Your task to perform on an android device: Set the phone to "Do not disturb". Image 0: 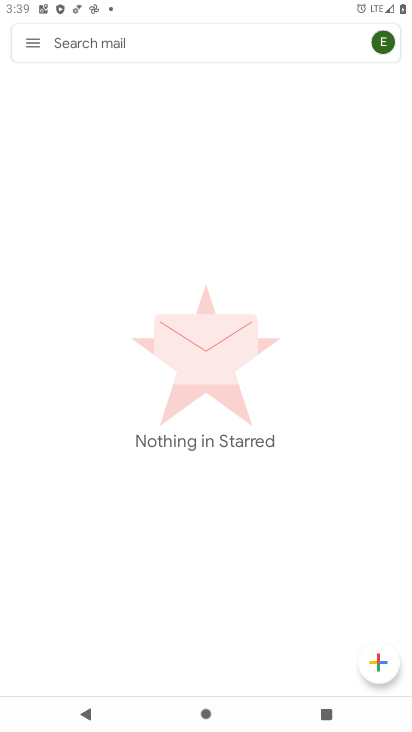
Step 0: press home button
Your task to perform on an android device: Set the phone to "Do not disturb". Image 1: 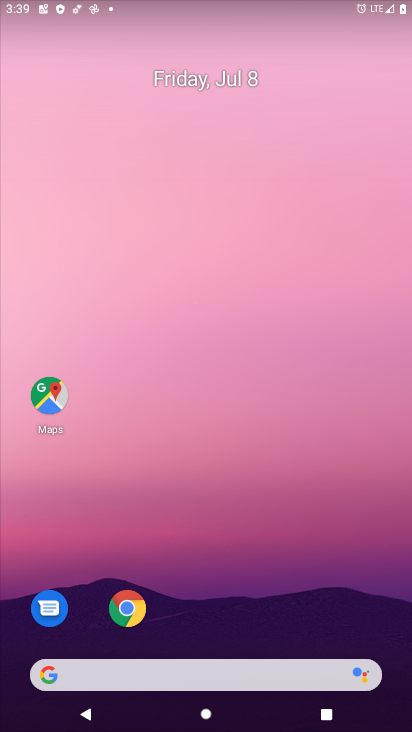
Step 1: drag from (191, 636) to (222, 37)
Your task to perform on an android device: Set the phone to "Do not disturb". Image 2: 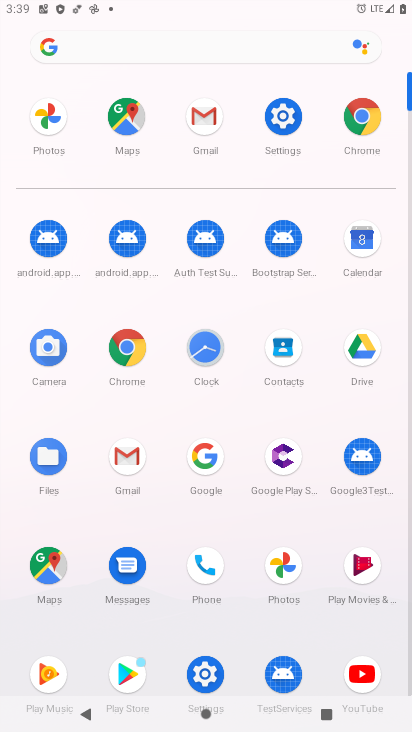
Step 2: click (297, 113)
Your task to perform on an android device: Set the phone to "Do not disturb". Image 3: 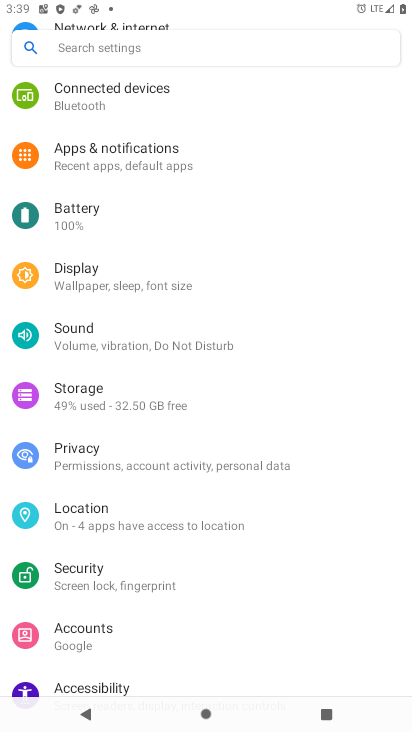
Step 3: click (83, 332)
Your task to perform on an android device: Set the phone to "Do not disturb". Image 4: 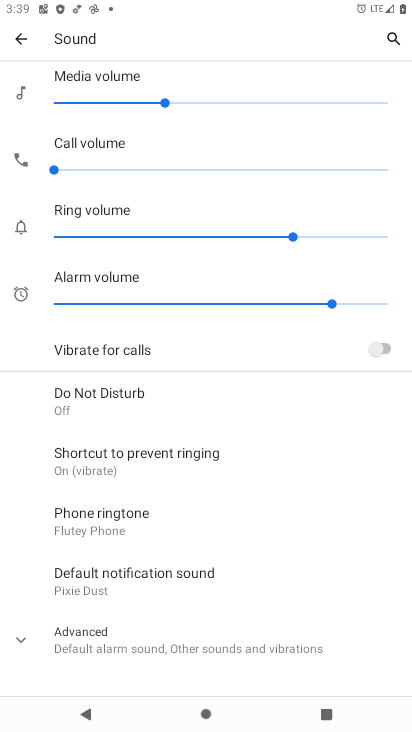
Step 4: click (133, 405)
Your task to perform on an android device: Set the phone to "Do not disturb". Image 5: 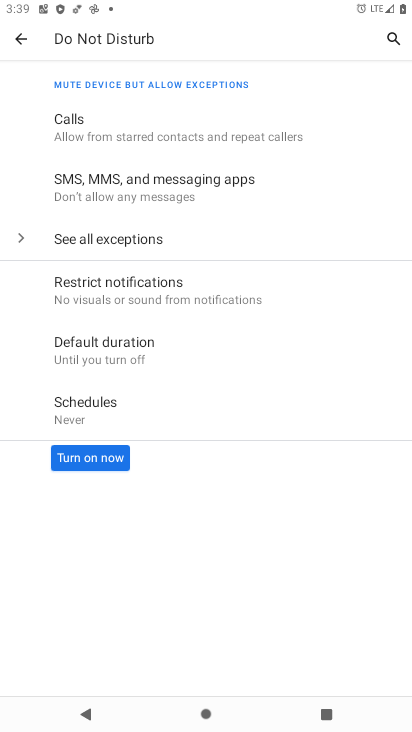
Step 5: click (94, 455)
Your task to perform on an android device: Set the phone to "Do not disturb". Image 6: 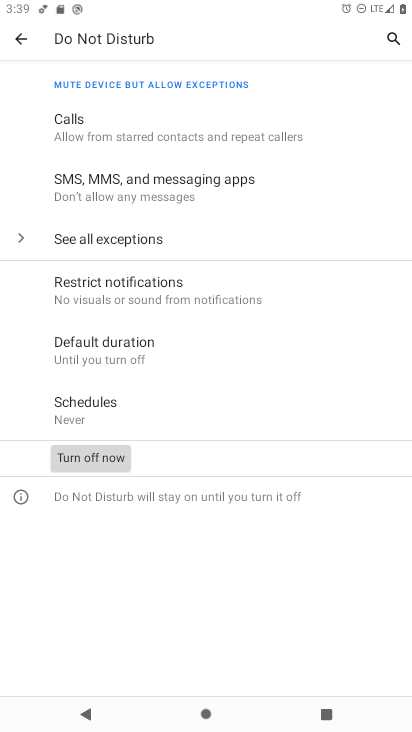
Step 6: task complete